Your task to perform on an android device: delete a single message in the gmail app Image 0: 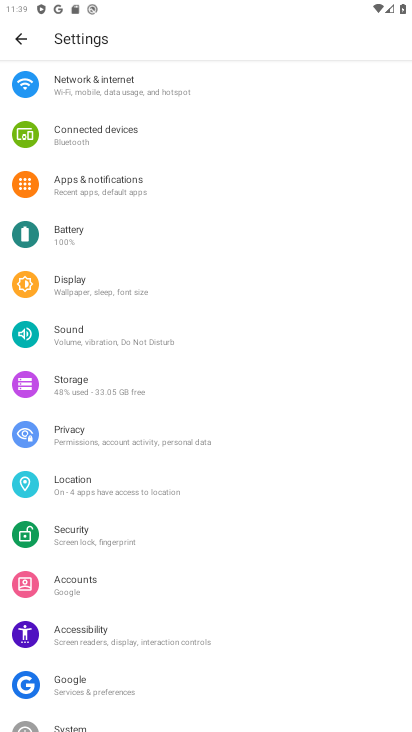
Step 0: press home button
Your task to perform on an android device: delete a single message in the gmail app Image 1: 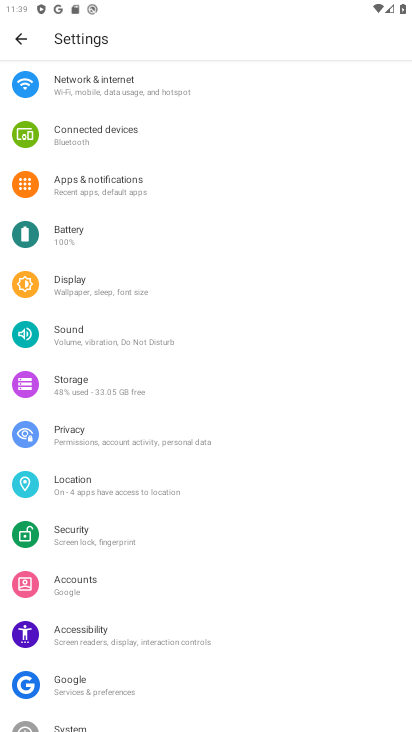
Step 1: press home button
Your task to perform on an android device: delete a single message in the gmail app Image 2: 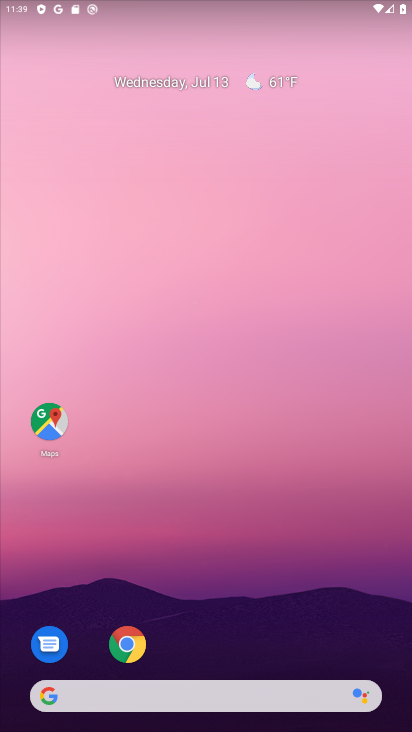
Step 2: drag from (271, 596) to (258, 188)
Your task to perform on an android device: delete a single message in the gmail app Image 3: 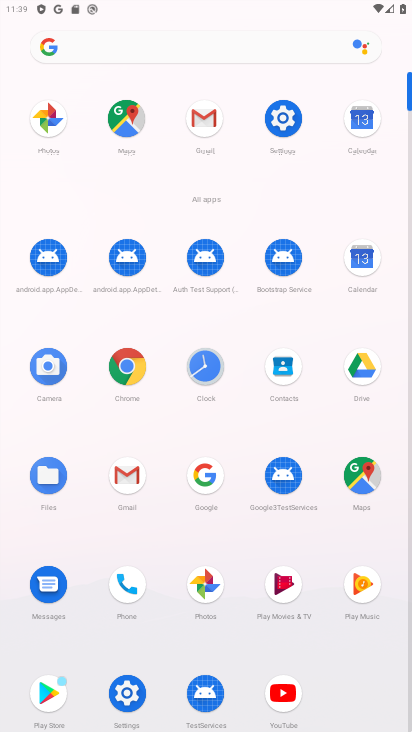
Step 3: click (127, 477)
Your task to perform on an android device: delete a single message in the gmail app Image 4: 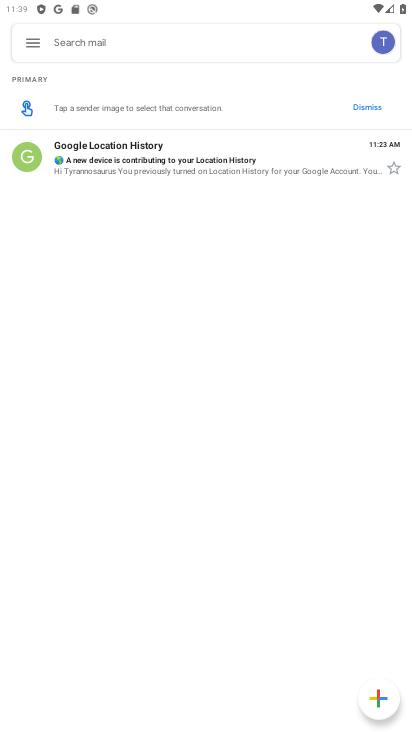
Step 4: click (261, 158)
Your task to perform on an android device: delete a single message in the gmail app Image 5: 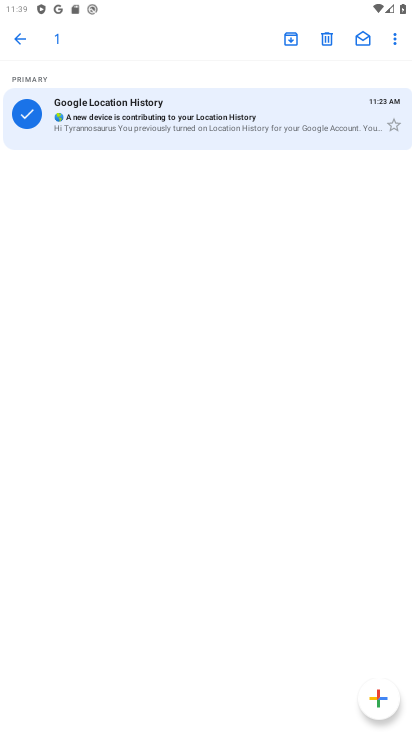
Step 5: click (326, 33)
Your task to perform on an android device: delete a single message in the gmail app Image 6: 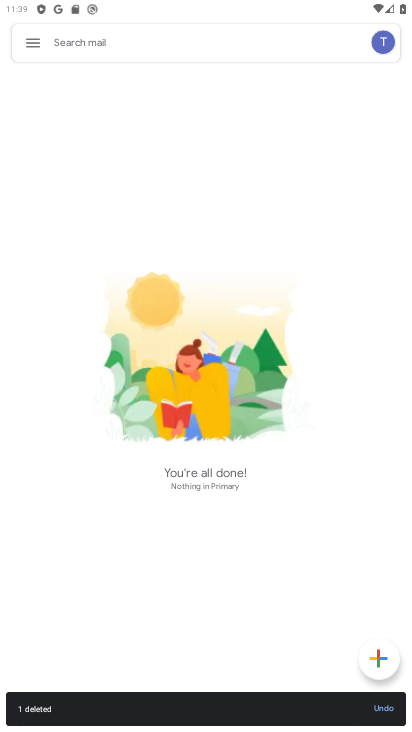
Step 6: task complete